Your task to perform on an android device: Open wifi settings Image 0: 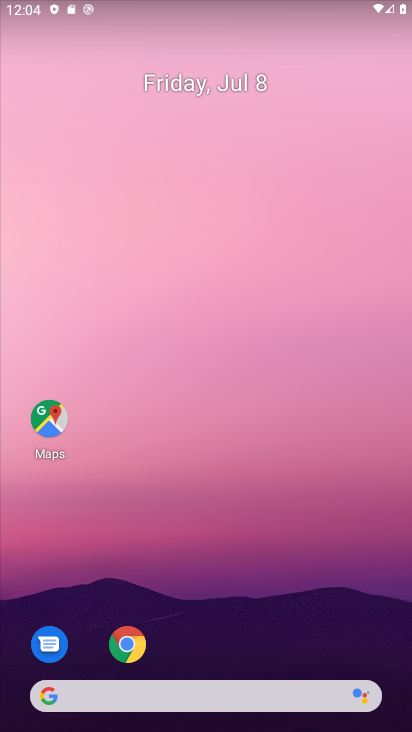
Step 0: drag from (176, 699) to (407, 206)
Your task to perform on an android device: Open wifi settings Image 1: 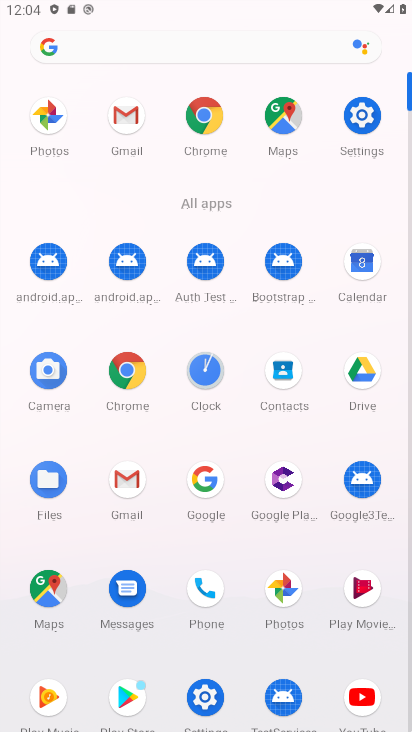
Step 1: click (363, 119)
Your task to perform on an android device: Open wifi settings Image 2: 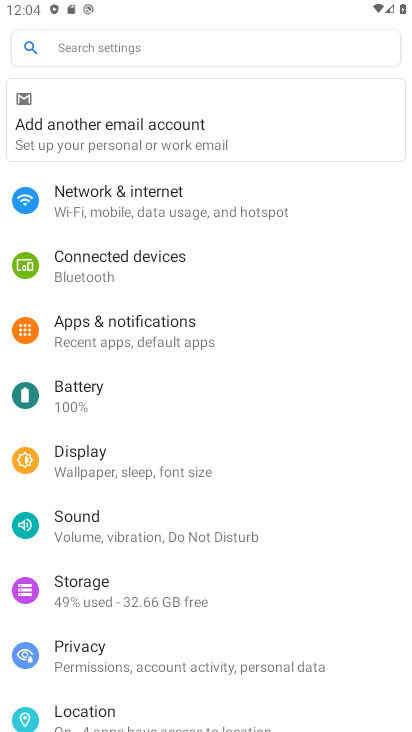
Step 2: click (125, 187)
Your task to perform on an android device: Open wifi settings Image 3: 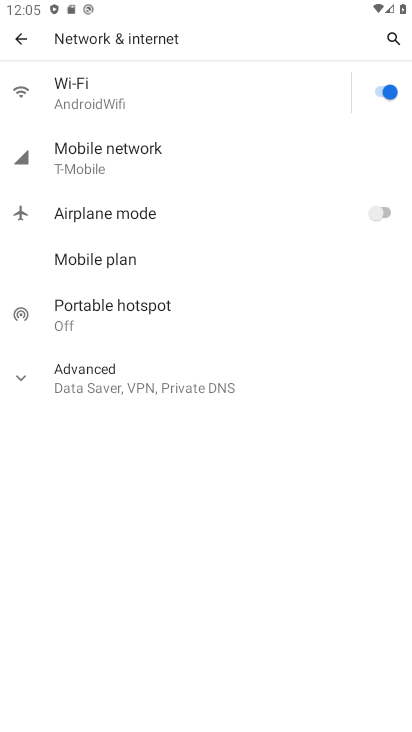
Step 3: click (86, 89)
Your task to perform on an android device: Open wifi settings Image 4: 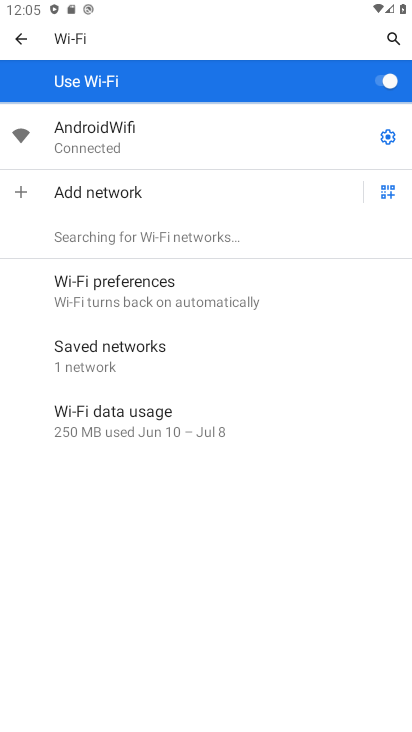
Step 4: task complete